Your task to perform on an android device: open wifi settings Image 0: 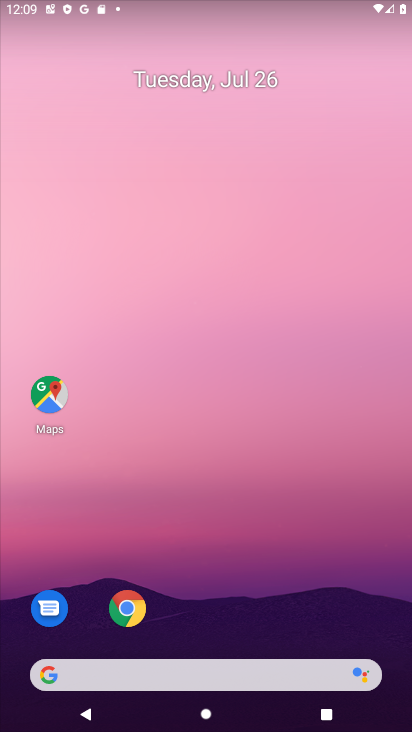
Step 0: drag from (235, 481) to (223, 560)
Your task to perform on an android device: open wifi settings Image 1: 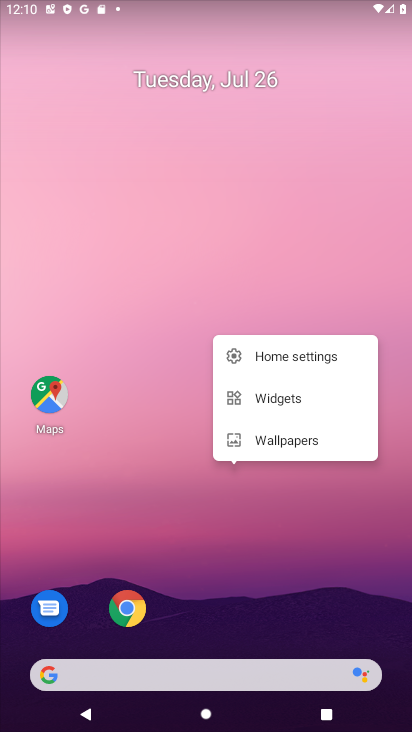
Step 1: drag from (138, 9) to (194, 596)
Your task to perform on an android device: open wifi settings Image 2: 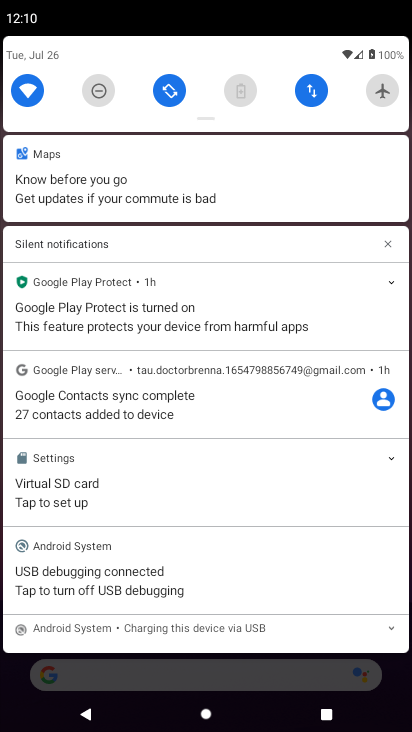
Step 2: click (19, 90)
Your task to perform on an android device: open wifi settings Image 3: 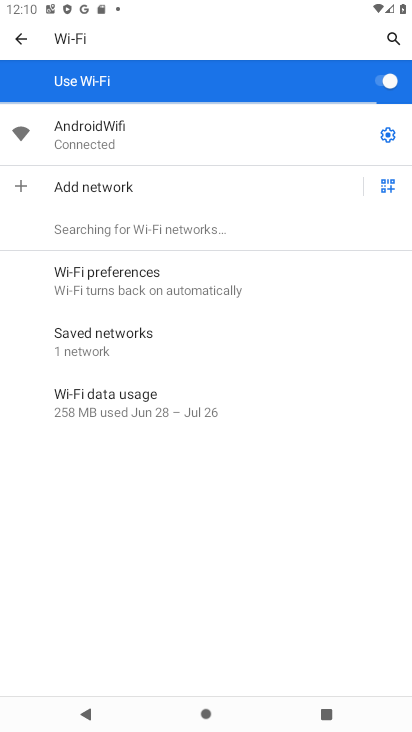
Step 3: task complete